Your task to perform on an android device: clear history in the chrome app Image 0: 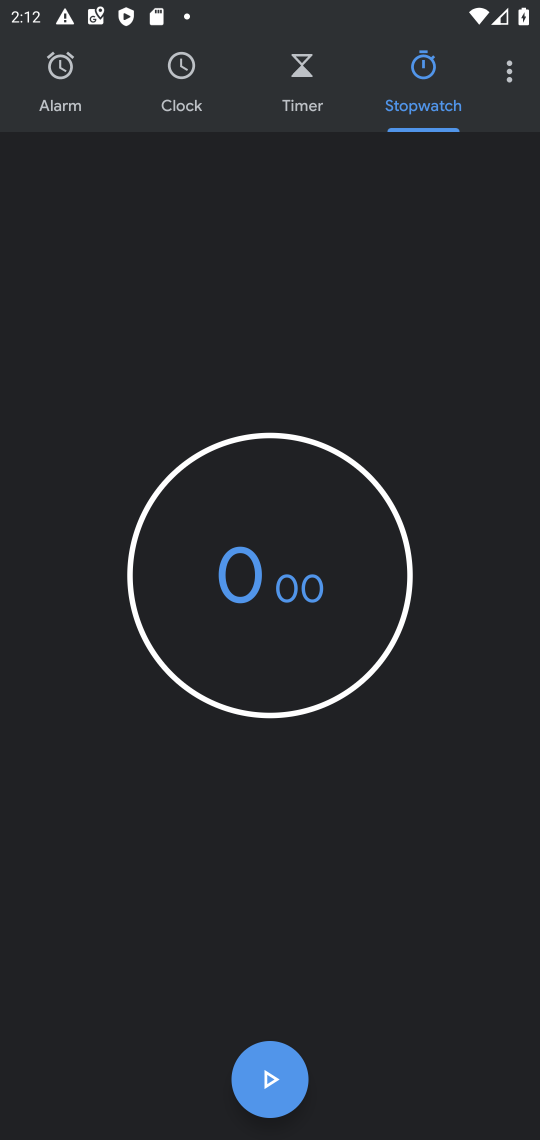
Step 0: press home button
Your task to perform on an android device: clear history in the chrome app Image 1: 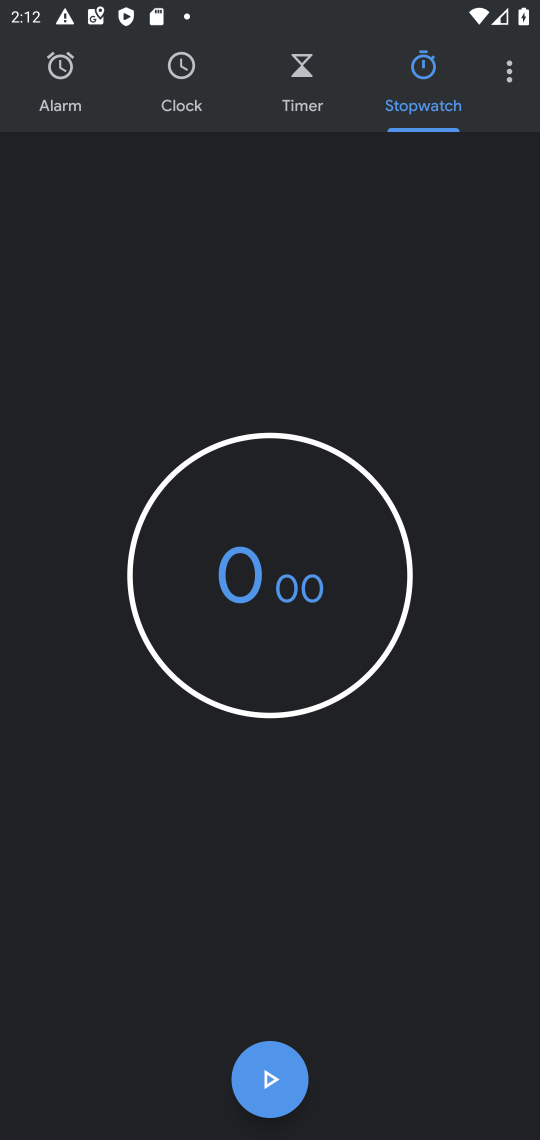
Step 1: press home button
Your task to perform on an android device: clear history in the chrome app Image 2: 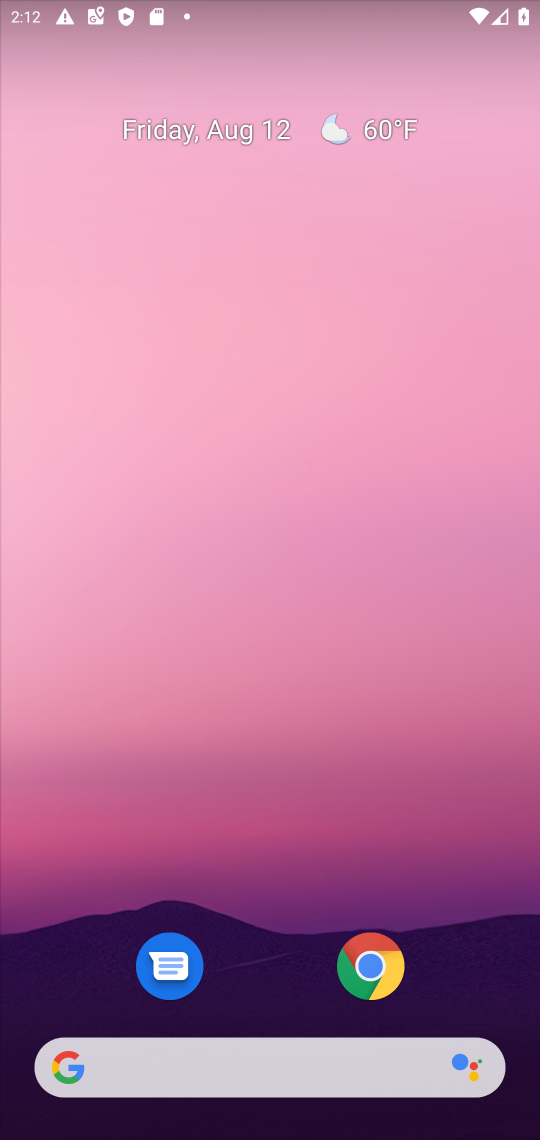
Step 2: drag from (257, 939) to (165, 120)
Your task to perform on an android device: clear history in the chrome app Image 3: 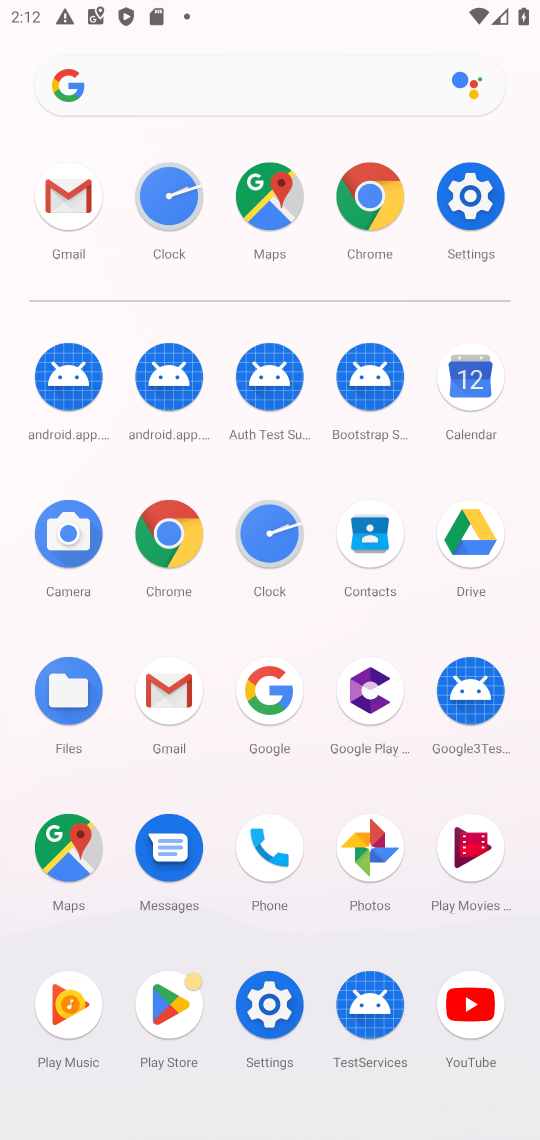
Step 3: click (150, 536)
Your task to perform on an android device: clear history in the chrome app Image 4: 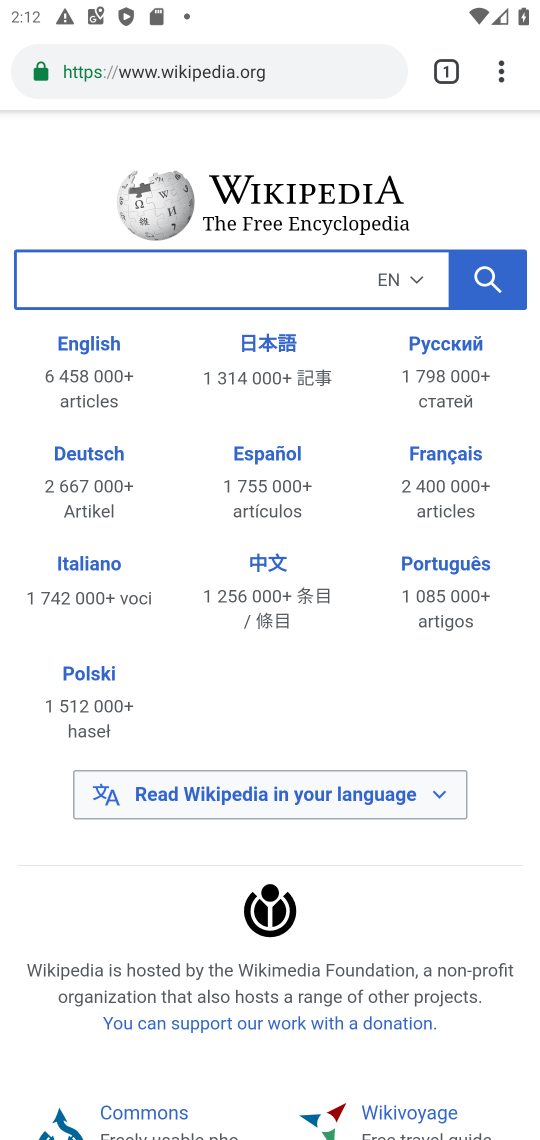
Step 4: drag from (507, 67) to (244, 416)
Your task to perform on an android device: clear history in the chrome app Image 5: 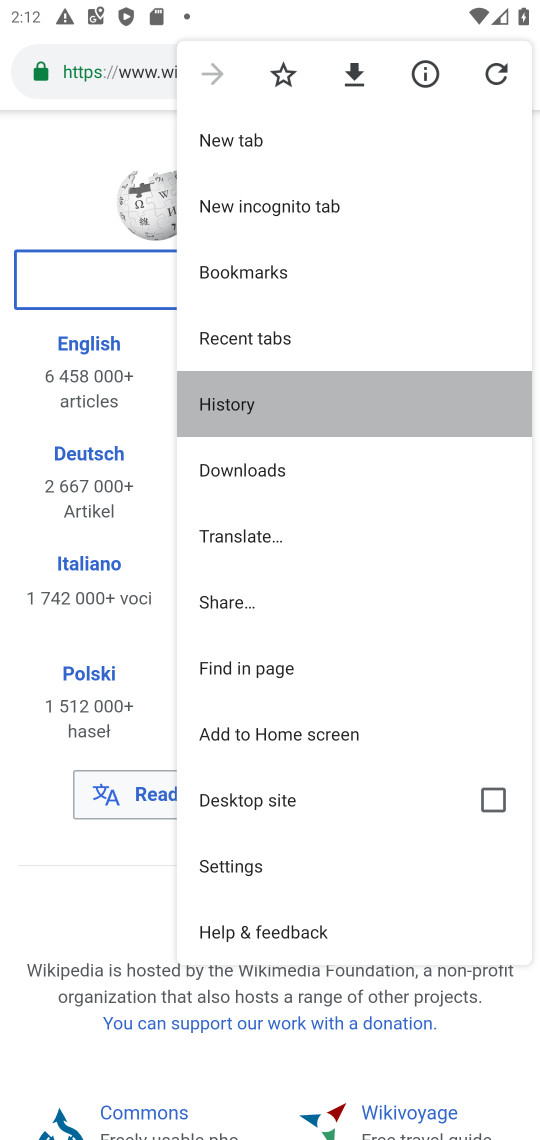
Step 5: click (244, 410)
Your task to perform on an android device: clear history in the chrome app Image 6: 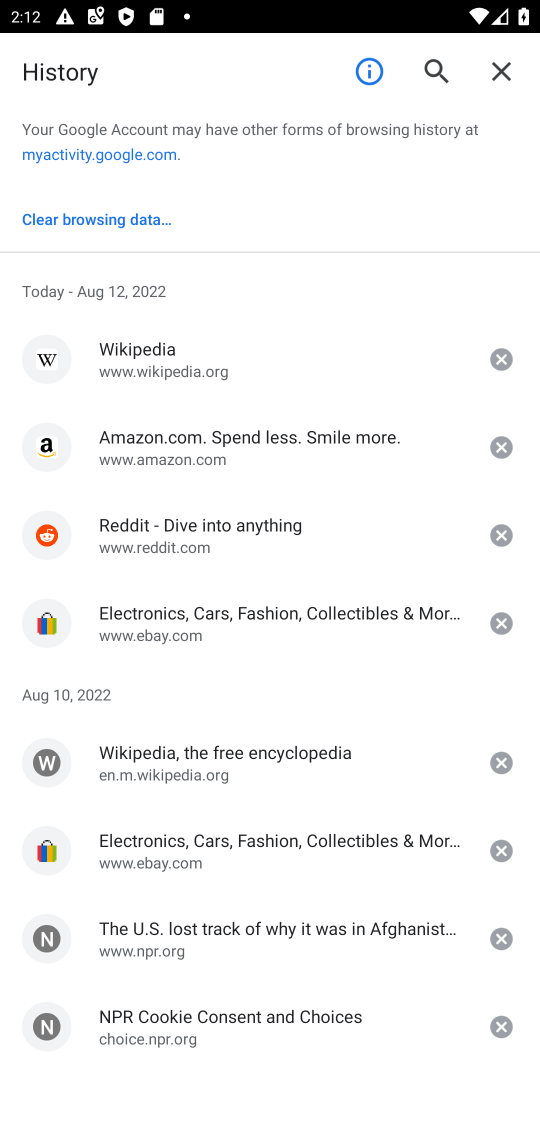
Step 6: click (122, 214)
Your task to perform on an android device: clear history in the chrome app Image 7: 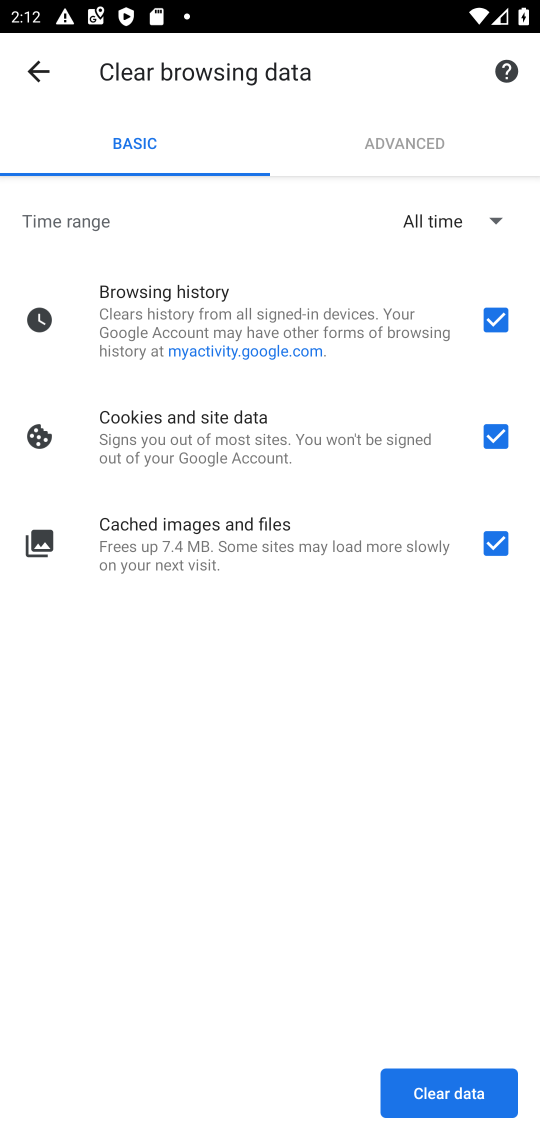
Step 7: click (460, 1082)
Your task to perform on an android device: clear history in the chrome app Image 8: 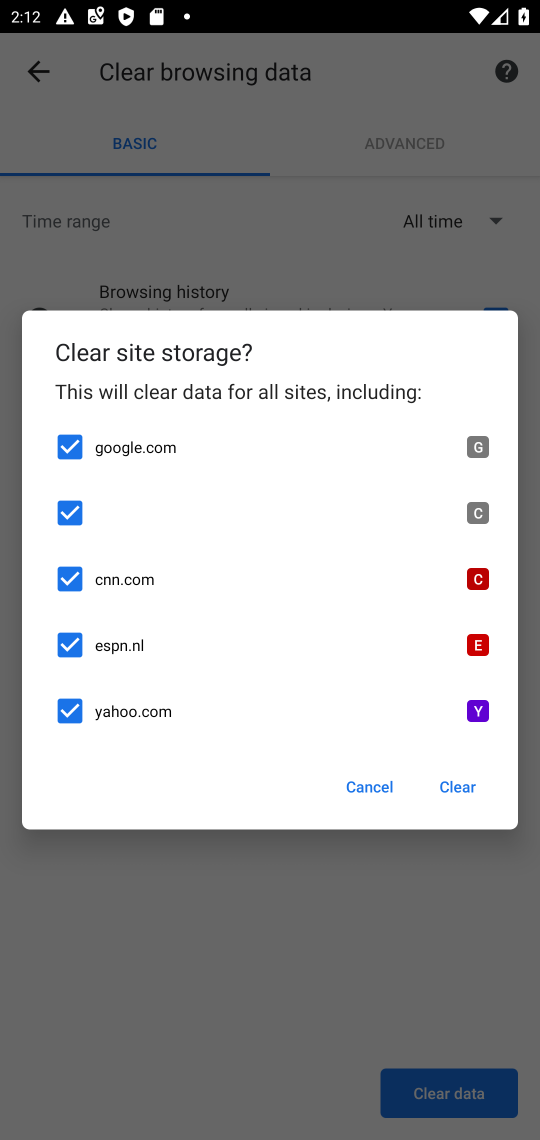
Step 8: click (461, 782)
Your task to perform on an android device: clear history in the chrome app Image 9: 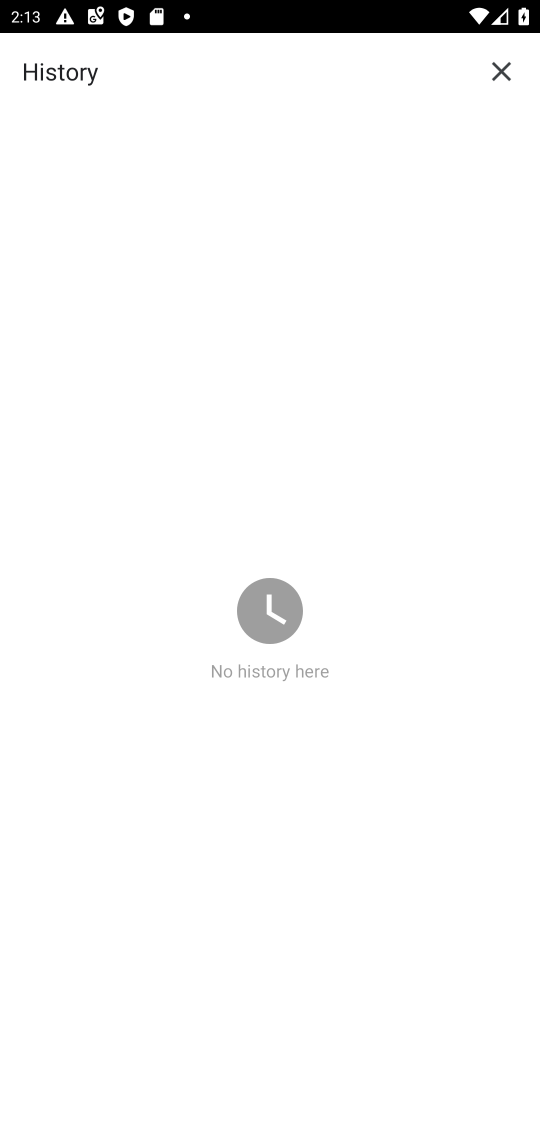
Step 9: task complete